Your task to perform on an android device: check out phone information Image 0: 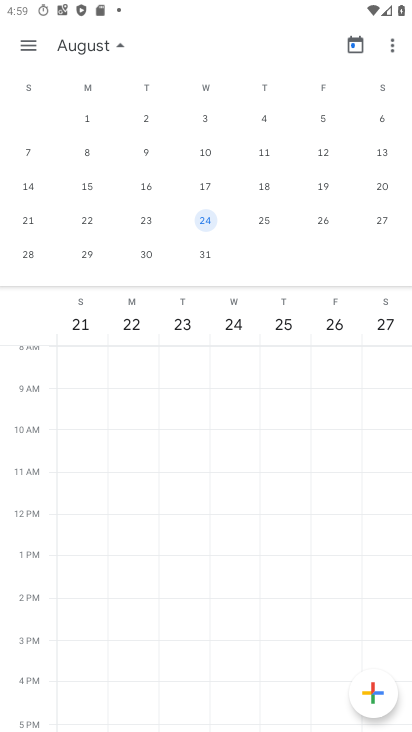
Step 0: press home button
Your task to perform on an android device: check out phone information Image 1: 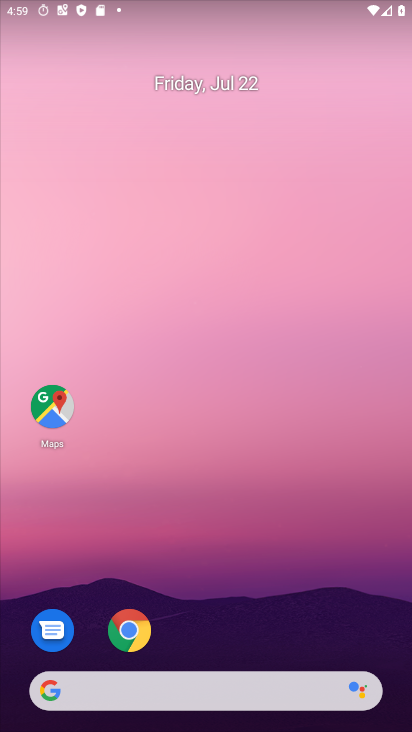
Step 1: drag from (207, 699) to (341, 5)
Your task to perform on an android device: check out phone information Image 2: 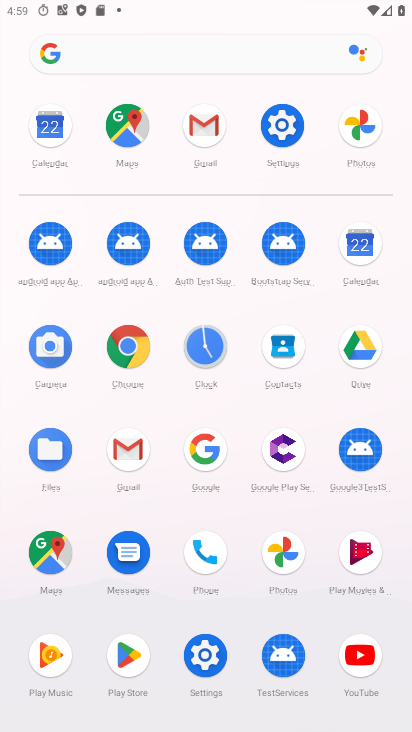
Step 2: click (277, 112)
Your task to perform on an android device: check out phone information Image 3: 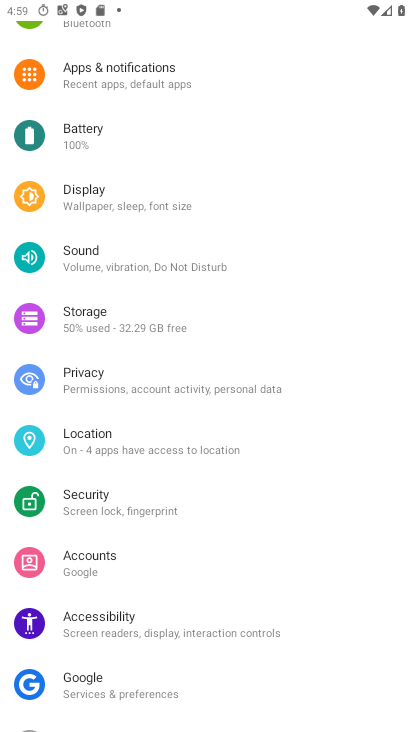
Step 3: drag from (210, 676) to (172, 20)
Your task to perform on an android device: check out phone information Image 4: 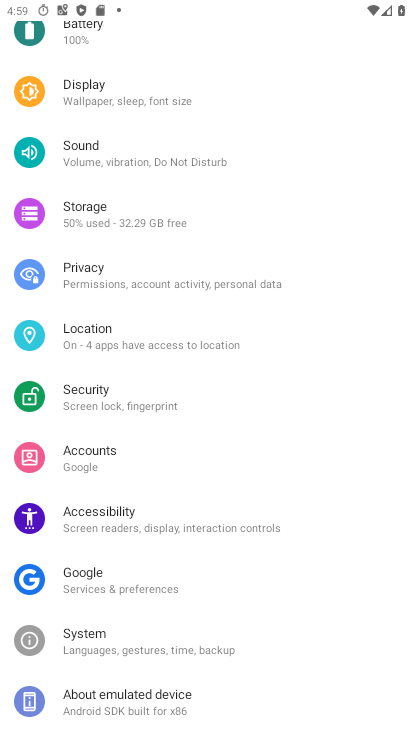
Step 4: click (193, 714)
Your task to perform on an android device: check out phone information Image 5: 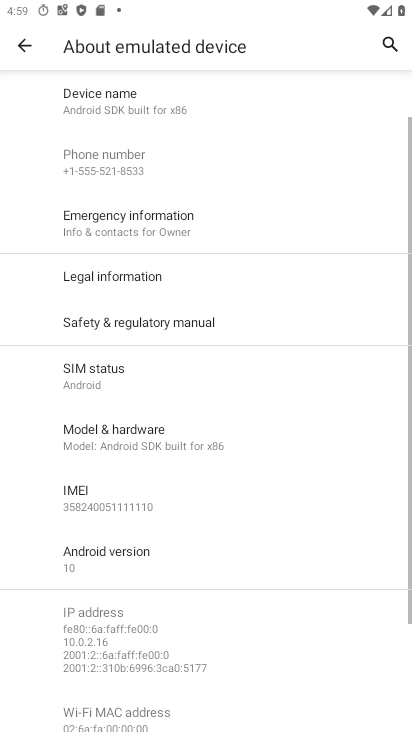
Step 5: task complete